Your task to perform on an android device: Open calendar and show me the fourth week of next month Image 0: 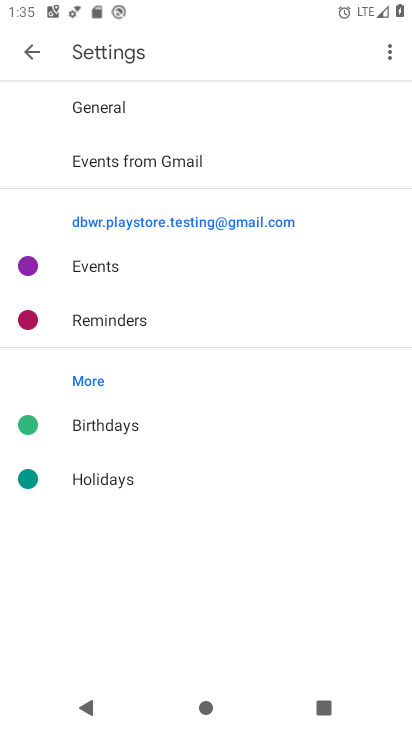
Step 0: press home button
Your task to perform on an android device: Open calendar and show me the fourth week of next month Image 1: 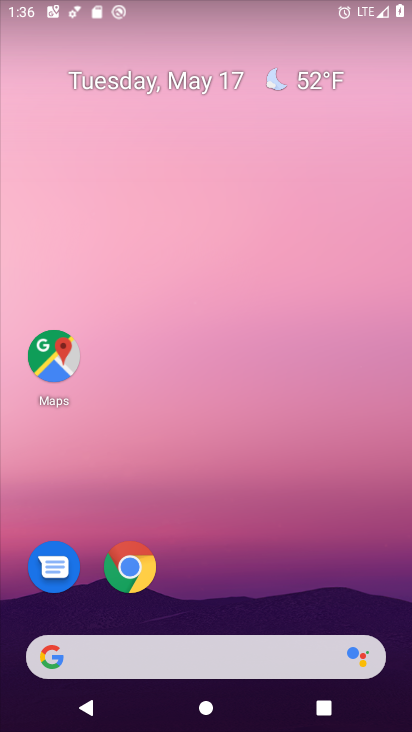
Step 1: drag from (255, 576) to (402, 453)
Your task to perform on an android device: Open calendar and show me the fourth week of next month Image 2: 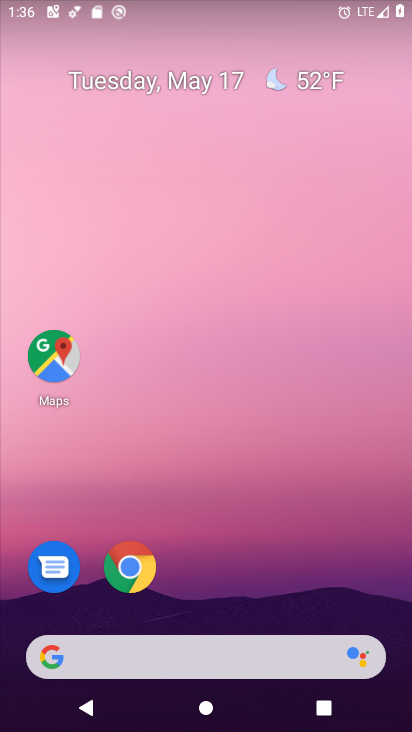
Step 2: drag from (213, 626) to (0, 36)
Your task to perform on an android device: Open calendar and show me the fourth week of next month Image 3: 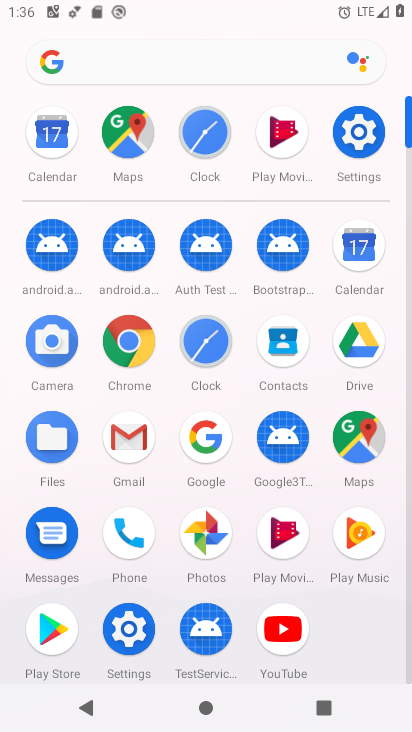
Step 3: click (350, 276)
Your task to perform on an android device: Open calendar and show me the fourth week of next month Image 4: 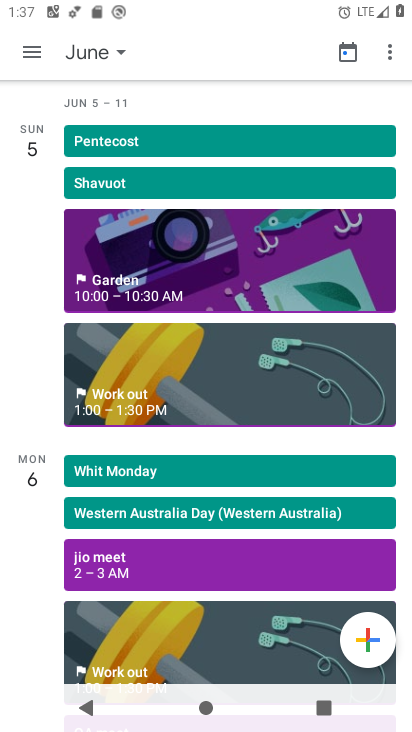
Step 4: click (36, 51)
Your task to perform on an android device: Open calendar and show me the fourth week of next month Image 5: 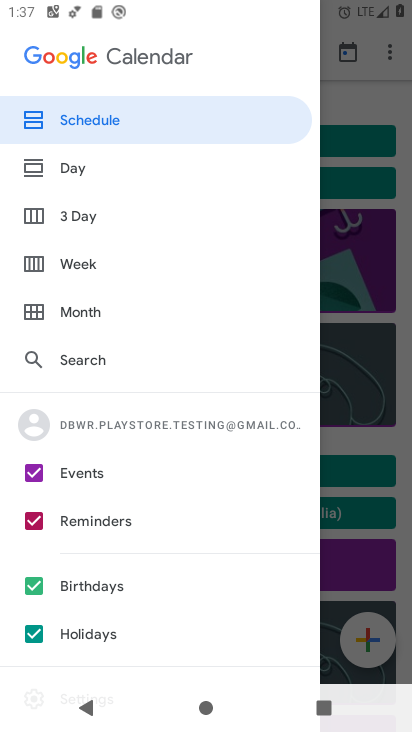
Step 5: click (76, 261)
Your task to perform on an android device: Open calendar and show me the fourth week of next month Image 6: 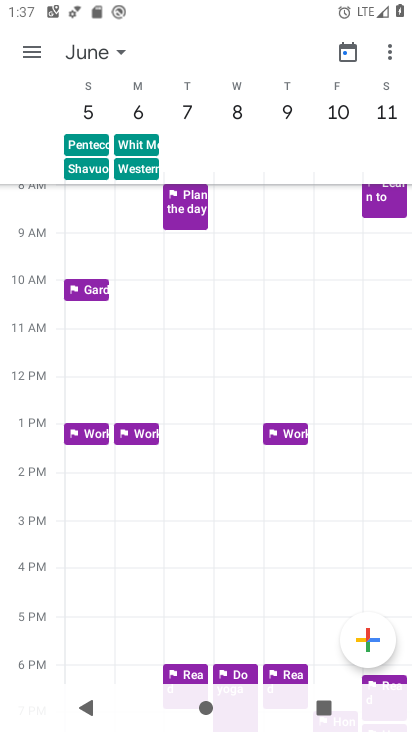
Step 6: click (93, 55)
Your task to perform on an android device: Open calendar and show me the fourth week of next month Image 7: 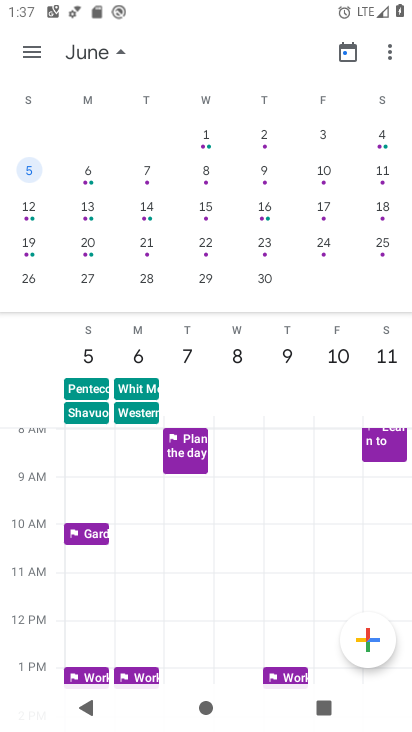
Step 7: click (34, 243)
Your task to perform on an android device: Open calendar and show me the fourth week of next month Image 8: 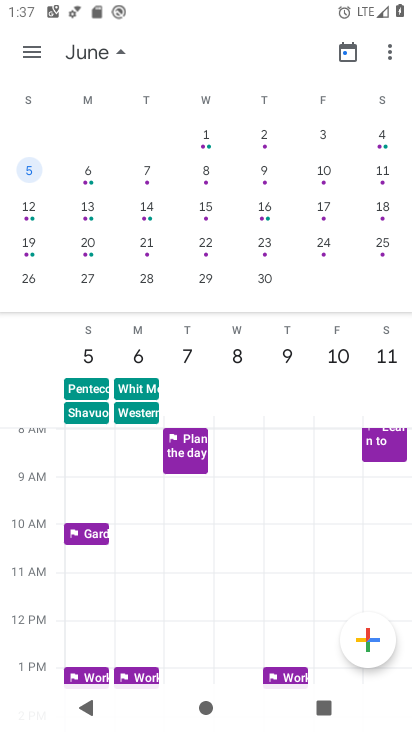
Step 8: click (34, 243)
Your task to perform on an android device: Open calendar and show me the fourth week of next month Image 9: 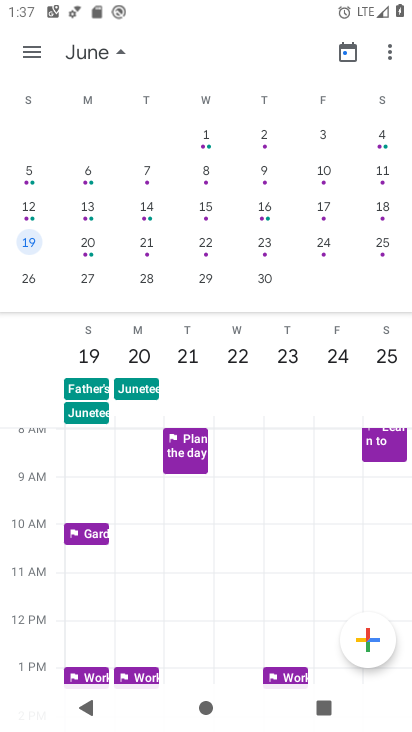
Step 9: task complete